Your task to perform on an android device: turn on bluetooth scan Image 0: 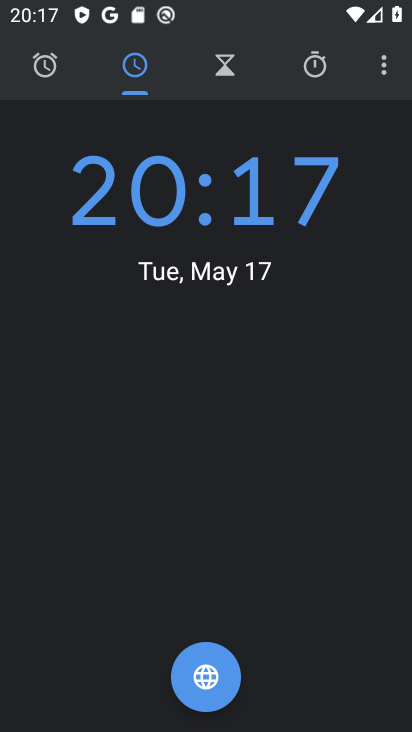
Step 0: press home button
Your task to perform on an android device: turn on bluetooth scan Image 1: 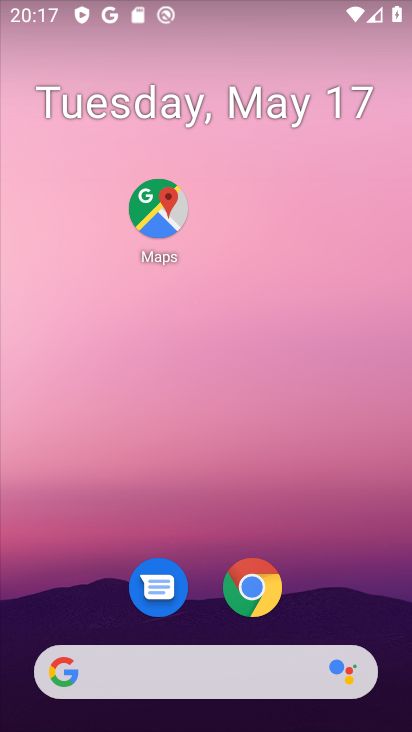
Step 1: drag from (84, 442) to (243, 167)
Your task to perform on an android device: turn on bluetooth scan Image 2: 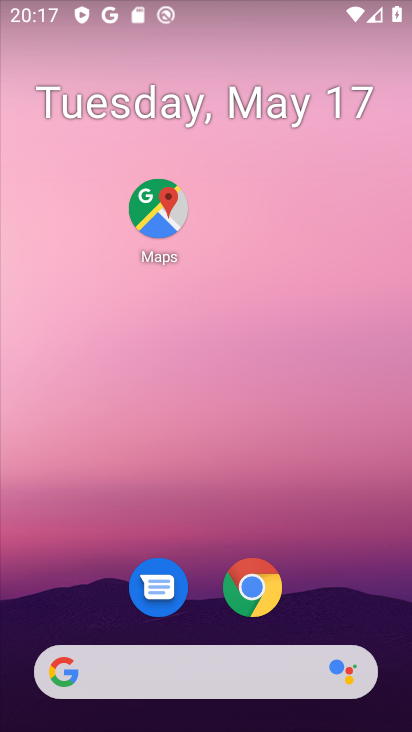
Step 2: drag from (6, 579) to (206, 103)
Your task to perform on an android device: turn on bluetooth scan Image 3: 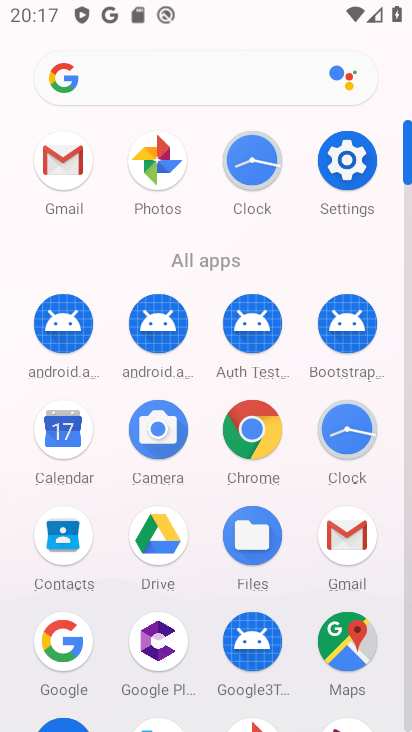
Step 3: click (361, 153)
Your task to perform on an android device: turn on bluetooth scan Image 4: 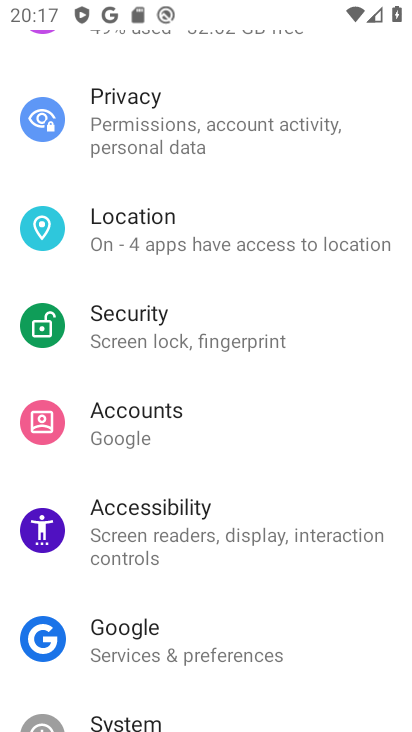
Step 4: drag from (127, 112) to (111, 634)
Your task to perform on an android device: turn on bluetooth scan Image 5: 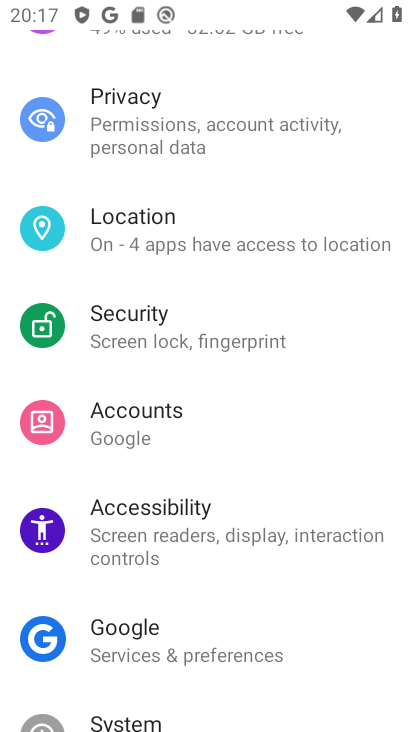
Step 5: drag from (121, 108) to (122, 586)
Your task to perform on an android device: turn on bluetooth scan Image 6: 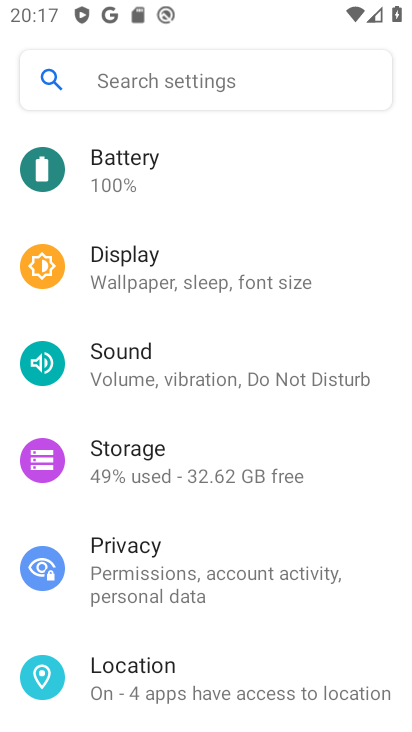
Step 6: drag from (177, 181) to (149, 591)
Your task to perform on an android device: turn on bluetooth scan Image 7: 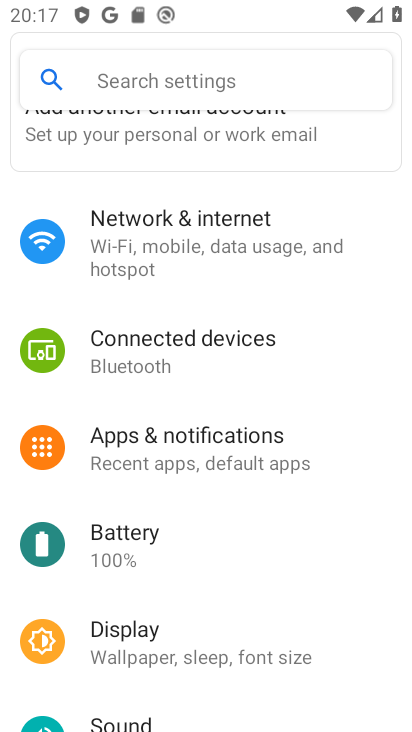
Step 7: drag from (16, 565) to (179, 223)
Your task to perform on an android device: turn on bluetooth scan Image 8: 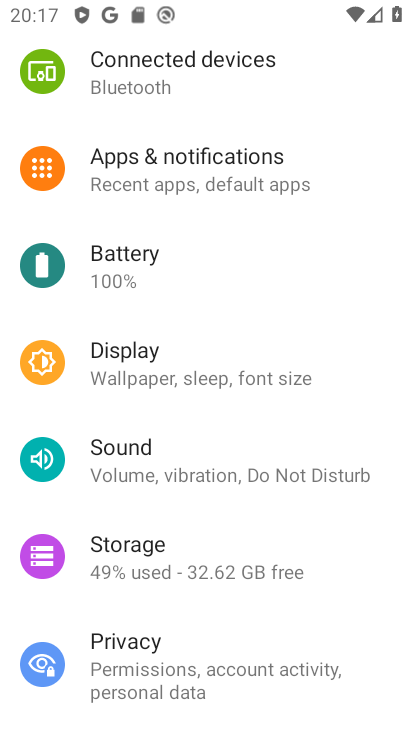
Step 8: drag from (120, 665) to (259, 253)
Your task to perform on an android device: turn on bluetooth scan Image 9: 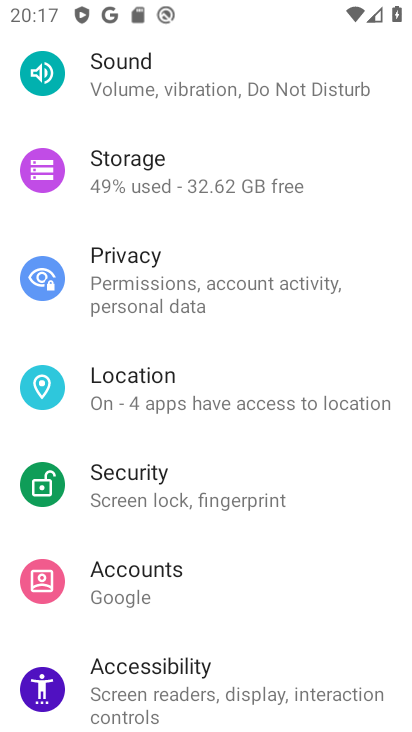
Step 9: drag from (218, 212) to (221, 636)
Your task to perform on an android device: turn on bluetooth scan Image 10: 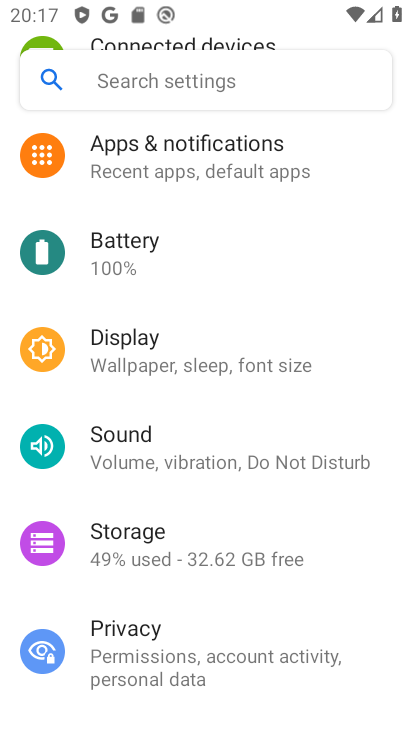
Step 10: drag from (229, 646) to (284, 345)
Your task to perform on an android device: turn on bluetooth scan Image 11: 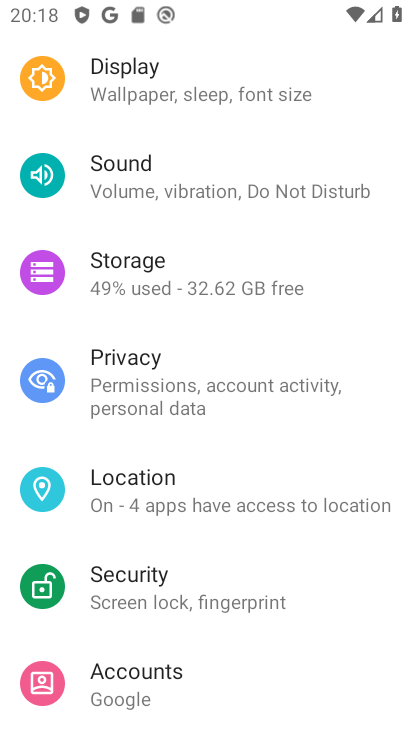
Step 11: drag from (86, 626) to (211, 268)
Your task to perform on an android device: turn on bluetooth scan Image 12: 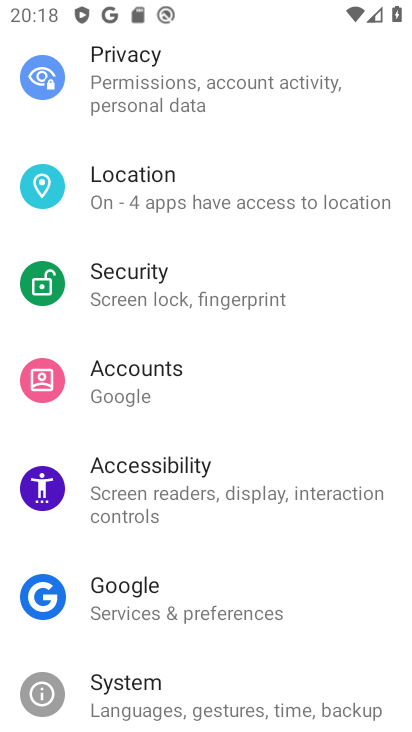
Step 12: click (215, 207)
Your task to perform on an android device: turn on bluetooth scan Image 13: 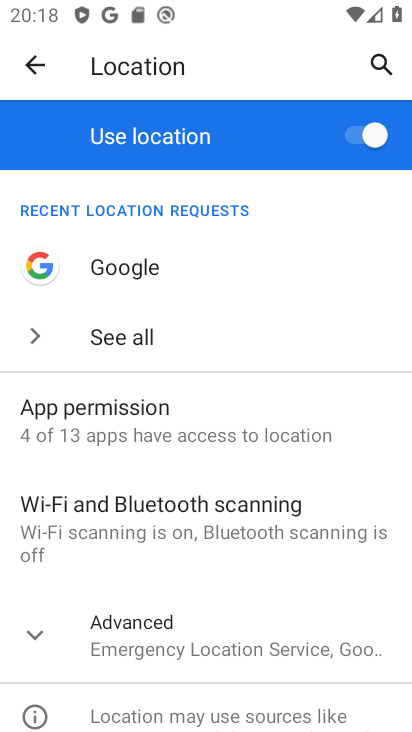
Step 13: click (149, 514)
Your task to perform on an android device: turn on bluetooth scan Image 14: 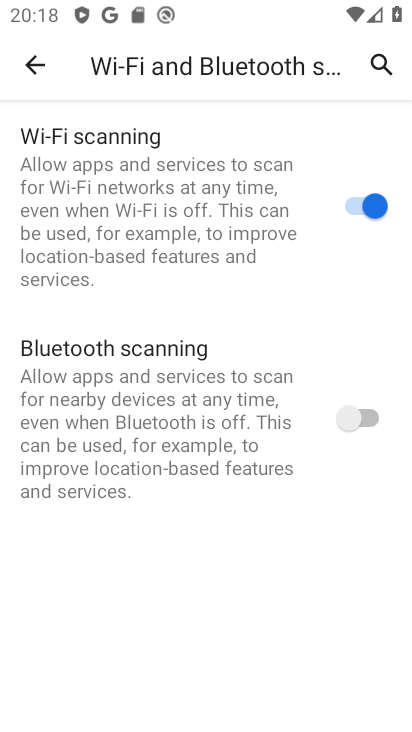
Step 14: click (345, 413)
Your task to perform on an android device: turn on bluetooth scan Image 15: 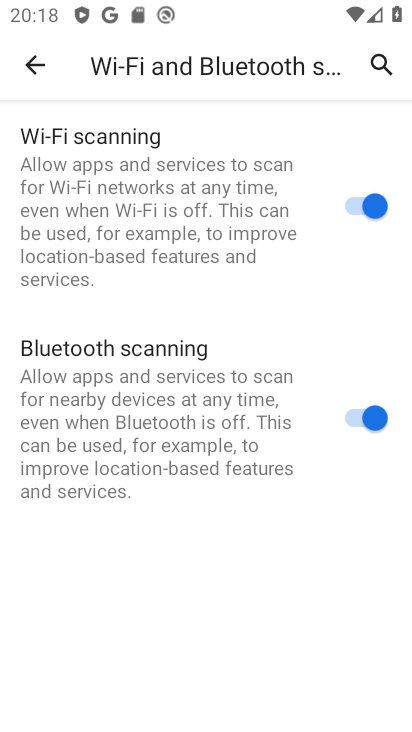
Step 15: task complete